Your task to perform on an android device: star an email in the gmail app Image 0: 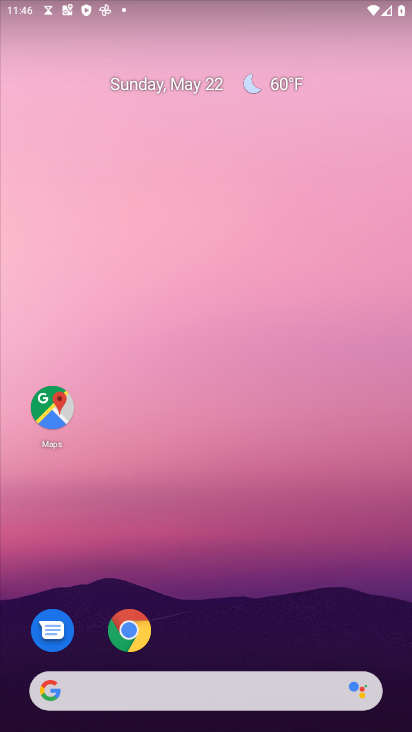
Step 0: drag from (239, 576) to (202, 182)
Your task to perform on an android device: star an email in the gmail app Image 1: 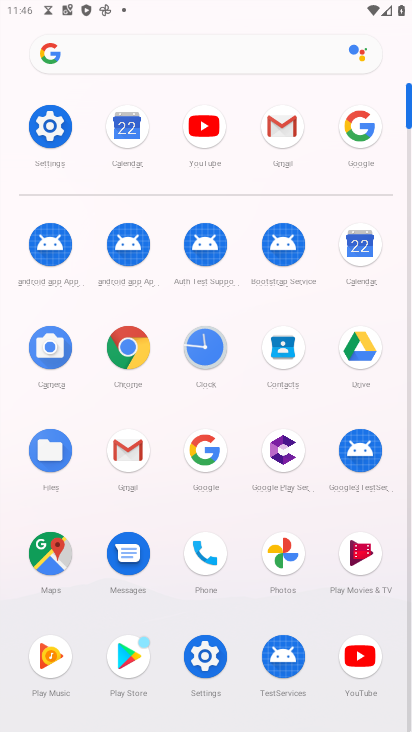
Step 1: click (287, 125)
Your task to perform on an android device: star an email in the gmail app Image 2: 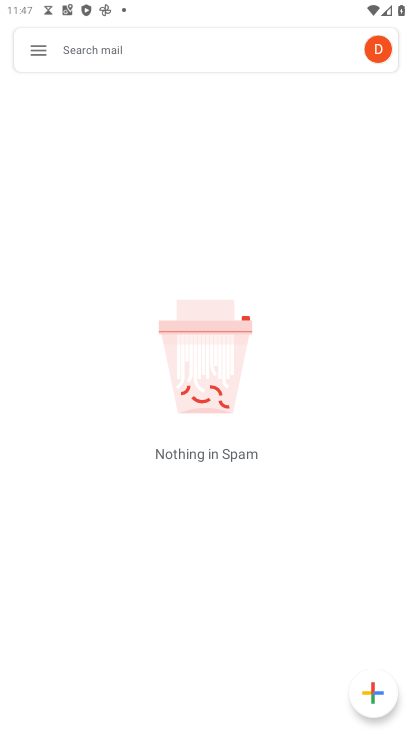
Step 2: click (36, 51)
Your task to perform on an android device: star an email in the gmail app Image 3: 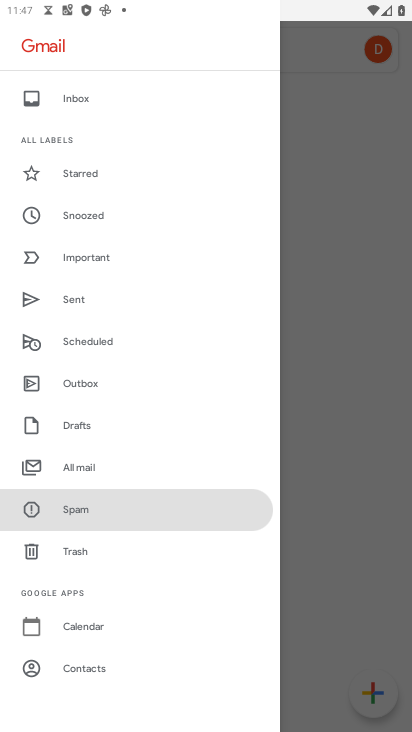
Step 3: click (102, 478)
Your task to perform on an android device: star an email in the gmail app Image 4: 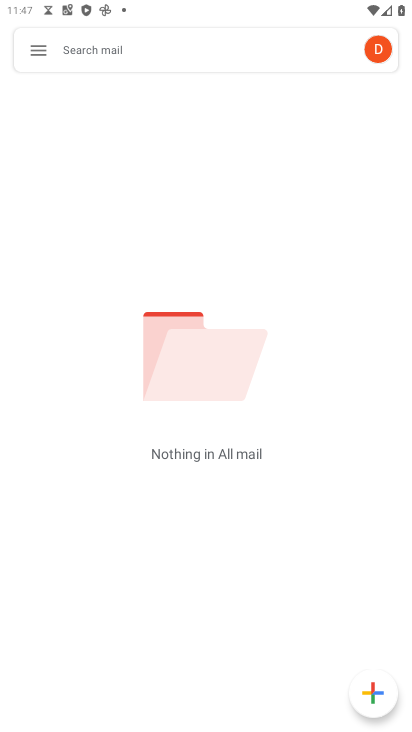
Step 4: click (44, 60)
Your task to perform on an android device: star an email in the gmail app Image 5: 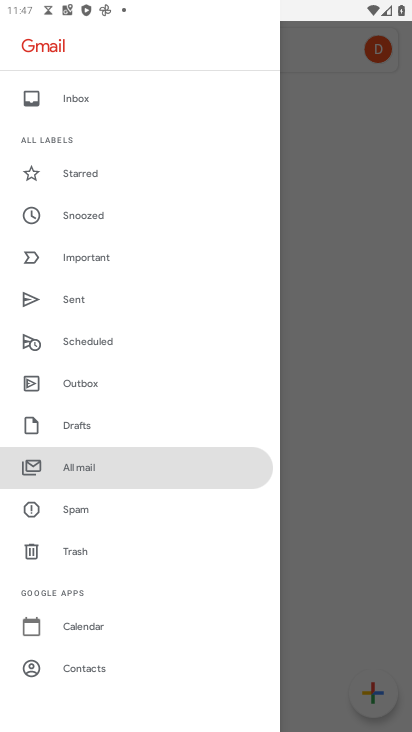
Step 5: task complete